Your task to perform on an android device: Open the stopwatch Image 0: 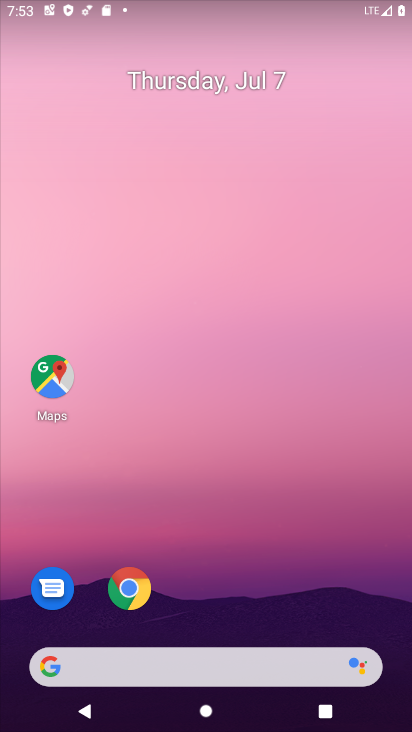
Step 0: drag from (258, 652) to (270, 211)
Your task to perform on an android device: Open the stopwatch Image 1: 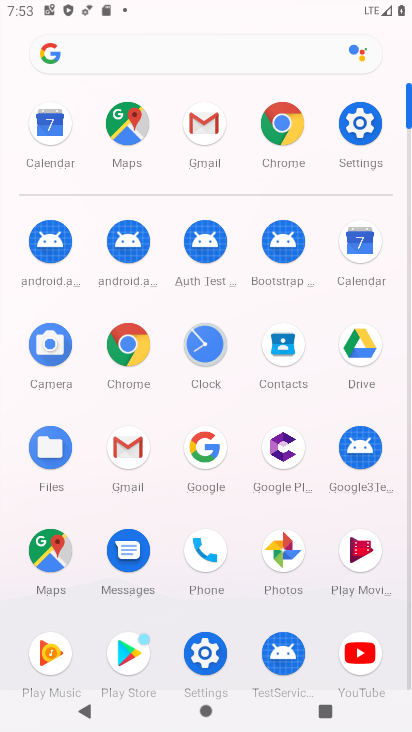
Step 1: click (197, 350)
Your task to perform on an android device: Open the stopwatch Image 2: 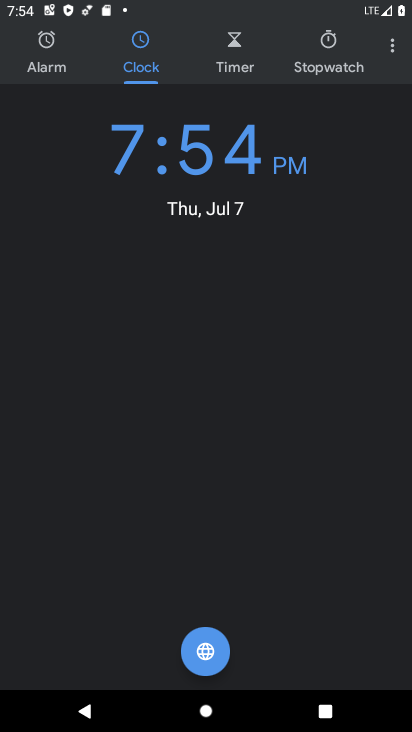
Step 2: click (314, 46)
Your task to perform on an android device: Open the stopwatch Image 3: 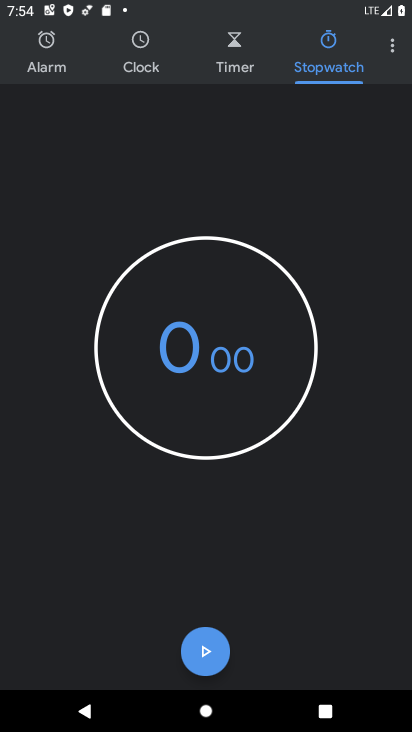
Step 3: task complete